Your task to perform on an android device: What's on the menu at Red Lobster? Image 0: 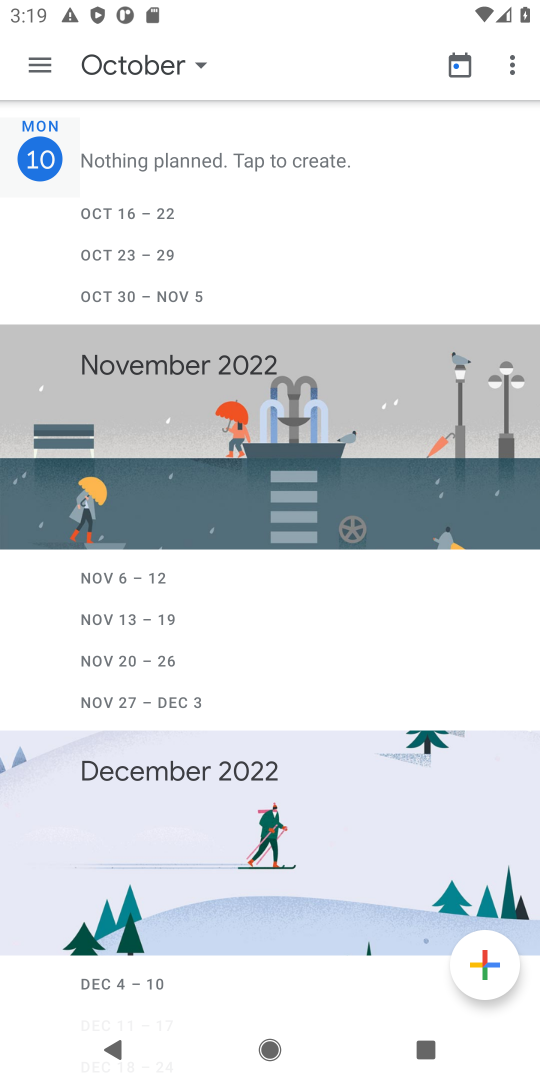
Step 0: press home button
Your task to perform on an android device: What's on the menu at Red Lobster? Image 1: 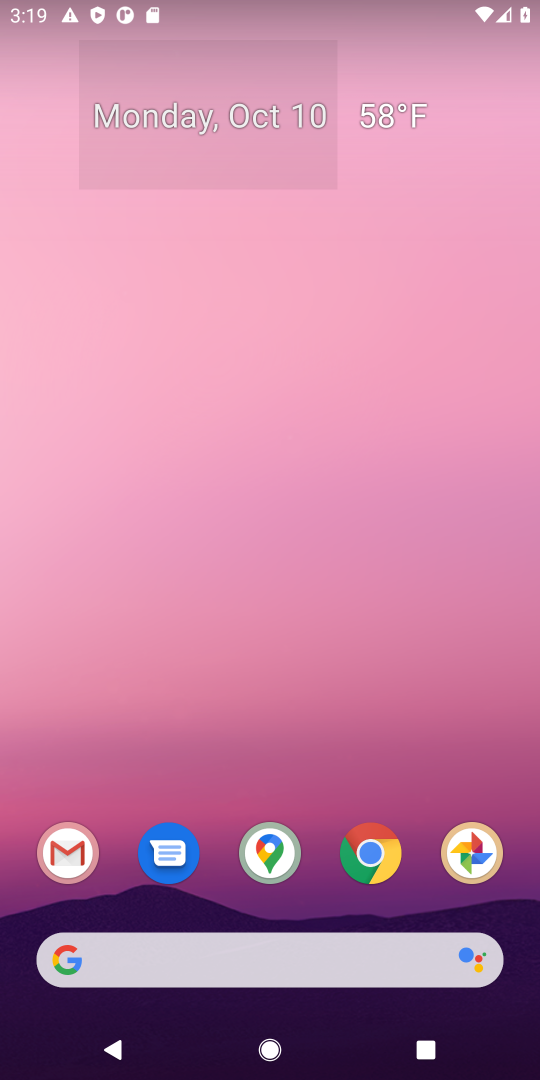
Step 1: click (176, 966)
Your task to perform on an android device: What's on the menu at Red Lobster? Image 2: 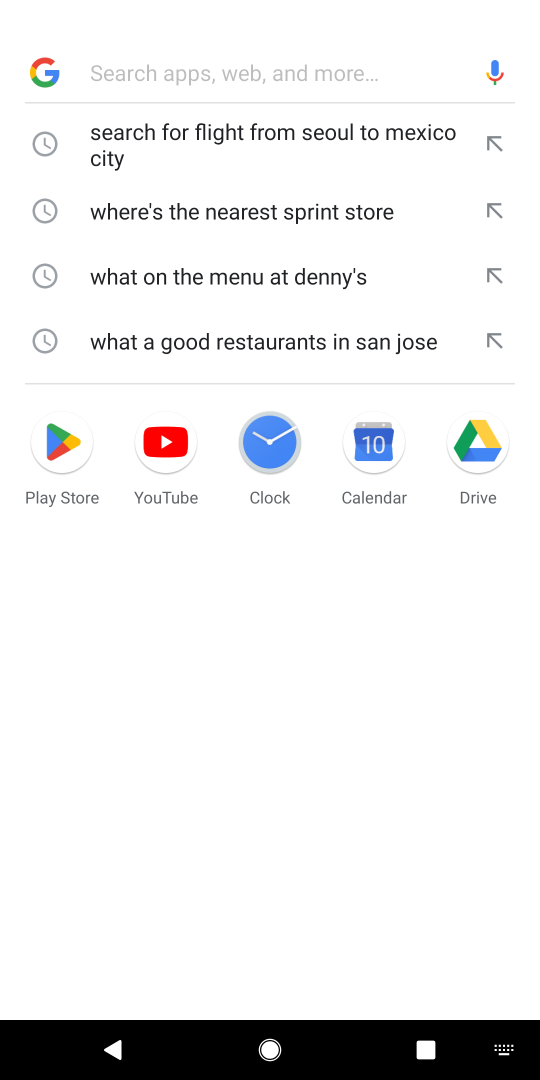
Step 2: click (110, 87)
Your task to perform on an android device: What's on the menu at Red Lobster? Image 3: 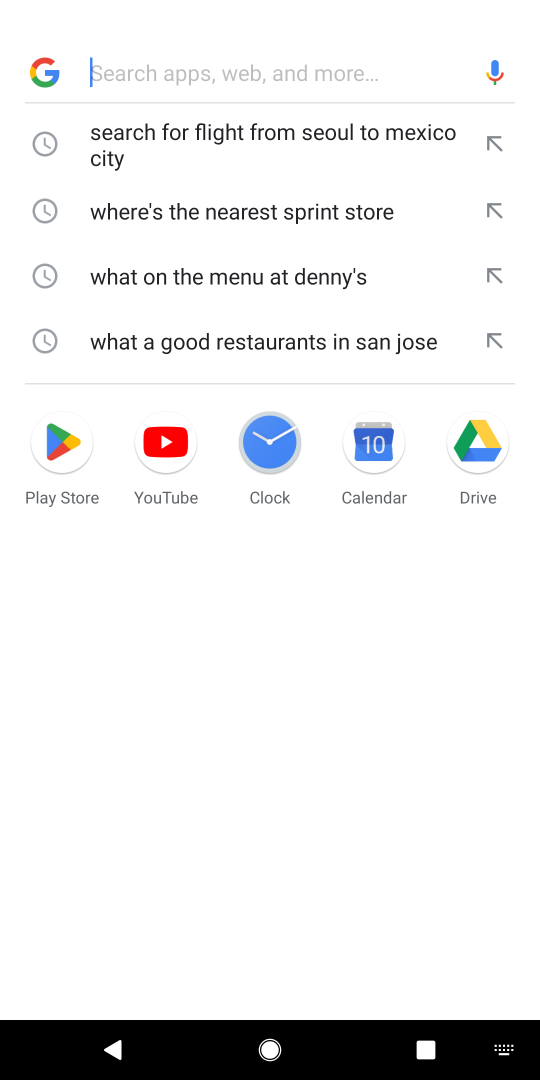
Step 3: type "What's on the menu at Red Lobster?"
Your task to perform on an android device: What's on the menu at Red Lobster? Image 4: 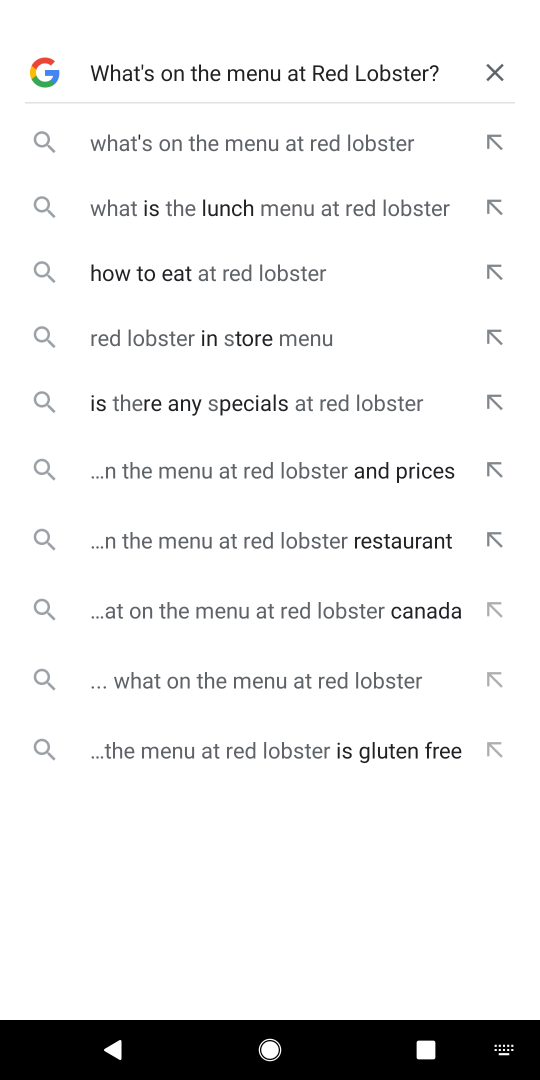
Step 4: click (229, 140)
Your task to perform on an android device: What's on the menu at Red Lobster? Image 5: 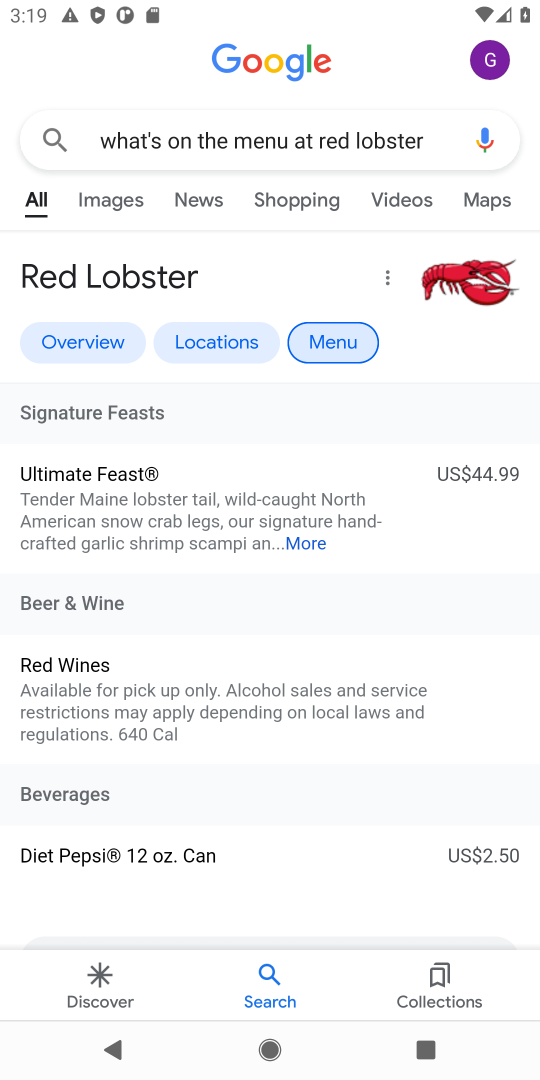
Step 5: task complete